Your task to perform on an android device: change the clock display to digital Image 0: 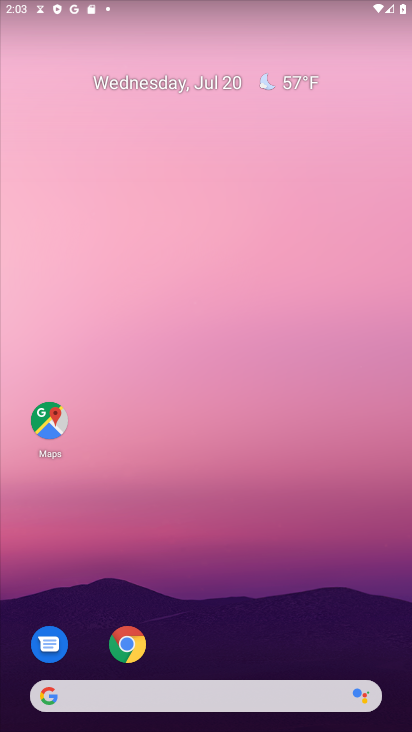
Step 0: press home button
Your task to perform on an android device: change the clock display to digital Image 1: 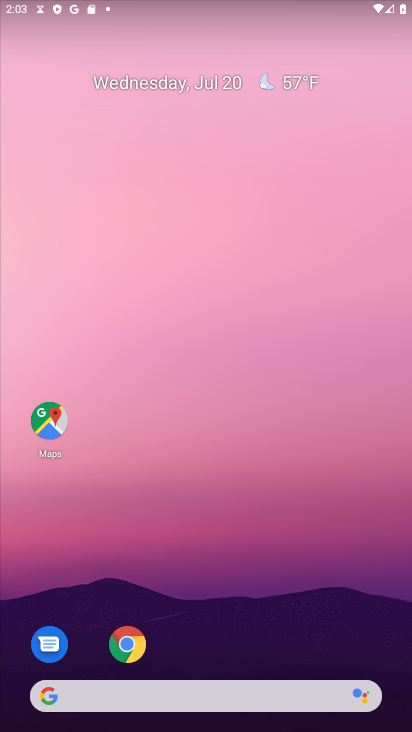
Step 1: drag from (233, 647) to (268, 25)
Your task to perform on an android device: change the clock display to digital Image 2: 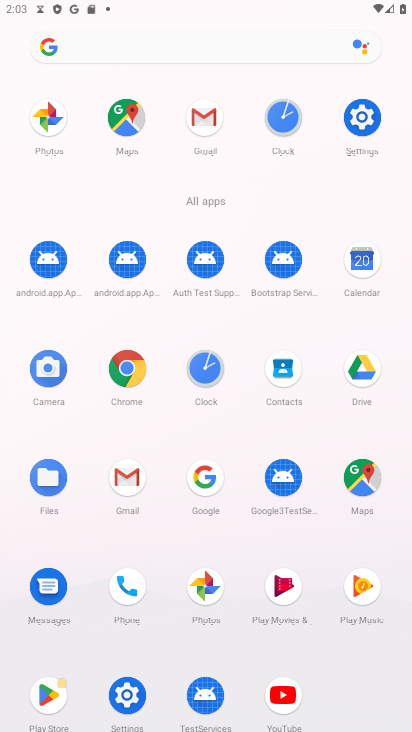
Step 2: click (286, 126)
Your task to perform on an android device: change the clock display to digital Image 3: 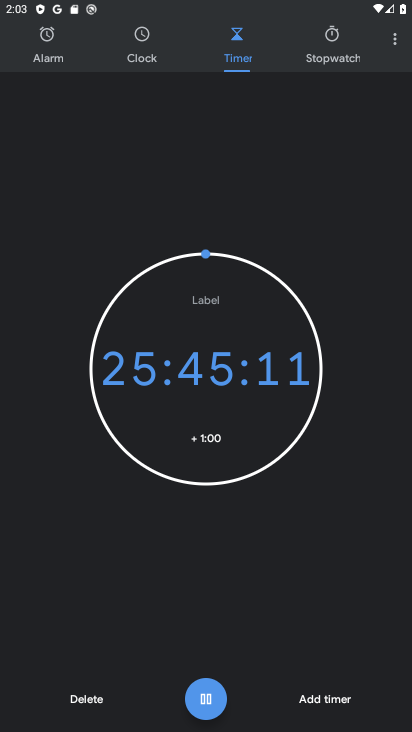
Step 3: click (391, 44)
Your task to perform on an android device: change the clock display to digital Image 4: 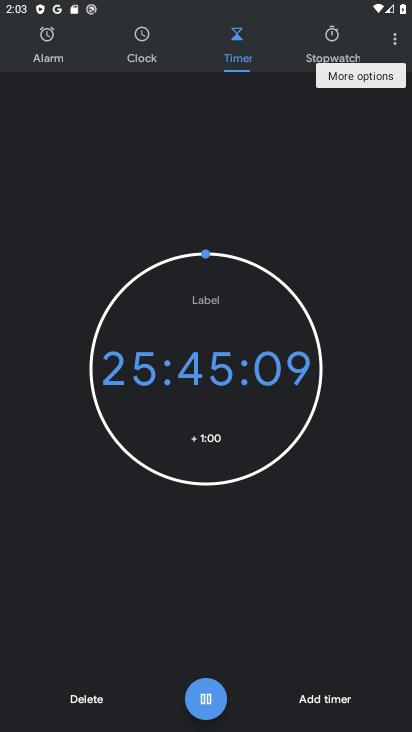
Step 4: click (396, 35)
Your task to perform on an android device: change the clock display to digital Image 5: 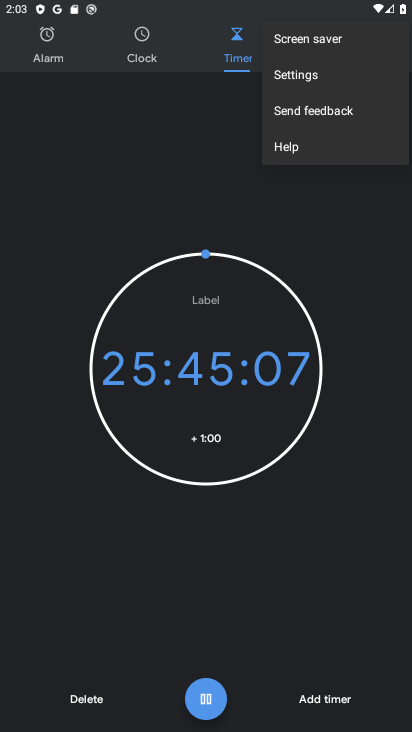
Step 5: click (304, 85)
Your task to perform on an android device: change the clock display to digital Image 6: 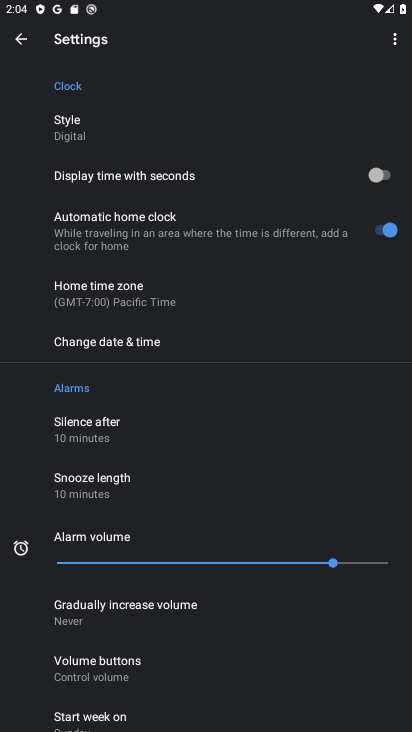
Step 6: click (65, 141)
Your task to perform on an android device: change the clock display to digital Image 7: 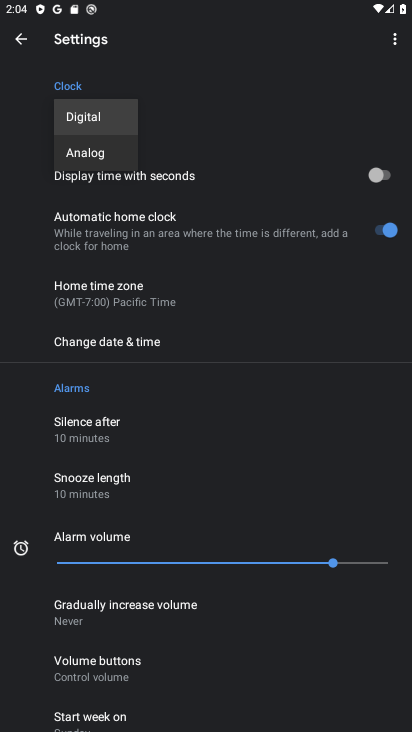
Step 7: task complete